Your task to perform on an android device: Go to calendar. Show me events next week Image 0: 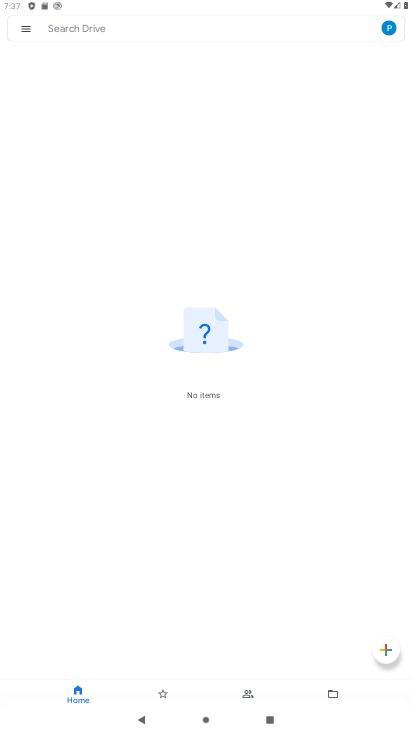
Step 0: press home button
Your task to perform on an android device: Go to calendar. Show me events next week Image 1: 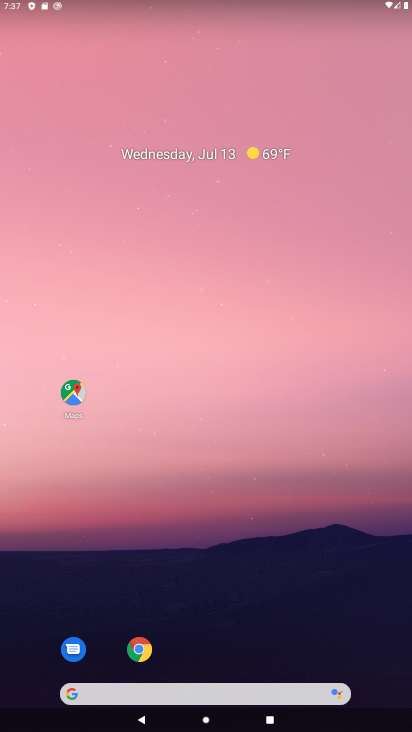
Step 1: drag from (253, 543) to (301, 212)
Your task to perform on an android device: Go to calendar. Show me events next week Image 2: 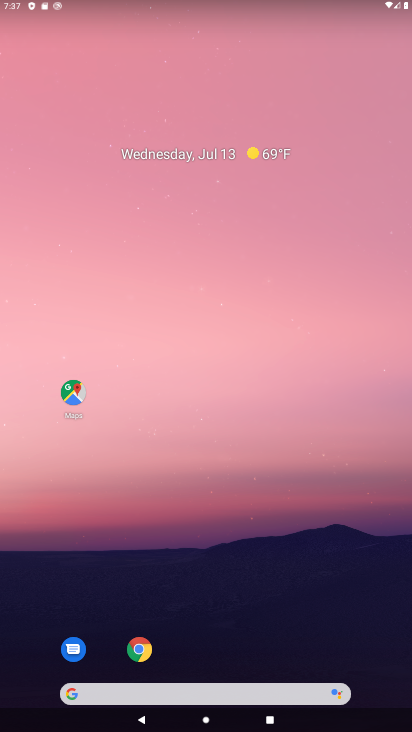
Step 2: drag from (163, 680) to (271, 184)
Your task to perform on an android device: Go to calendar. Show me events next week Image 3: 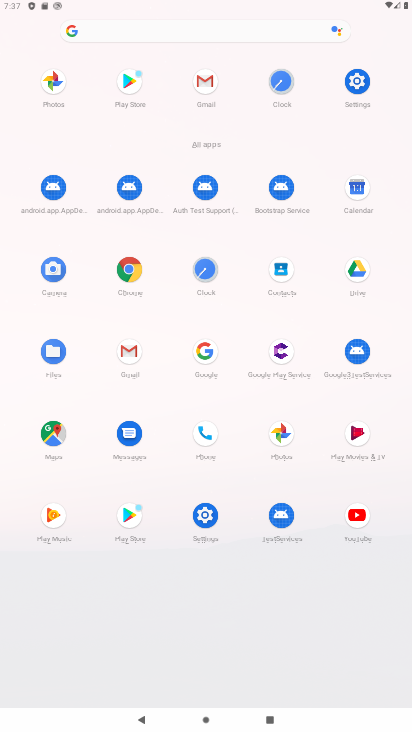
Step 3: click (356, 190)
Your task to perform on an android device: Go to calendar. Show me events next week Image 4: 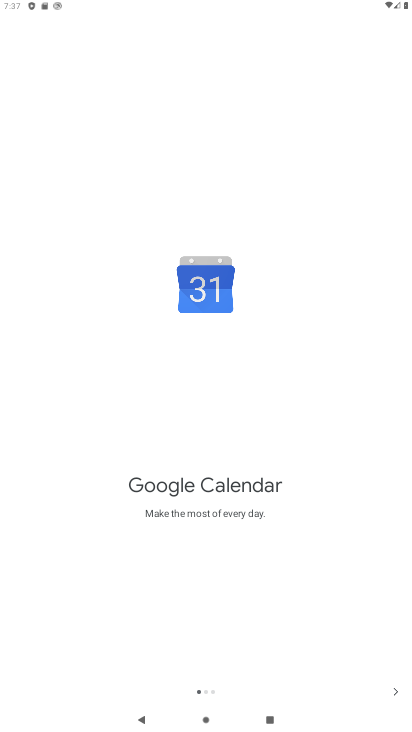
Step 4: click (390, 698)
Your task to perform on an android device: Go to calendar. Show me events next week Image 5: 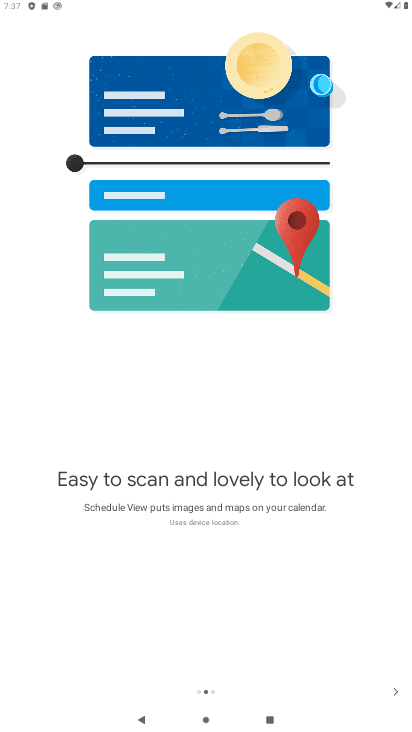
Step 5: click (390, 698)
Your task to perform on an android device: Go to calendar. Show me events next week Image 6: 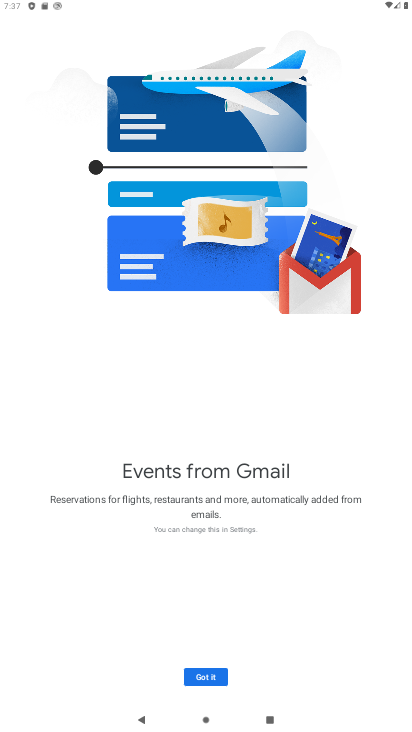
Step 6: click (211, 682)
Your task to perform on an android device: Go to calendar. Show me events next week Image 7: 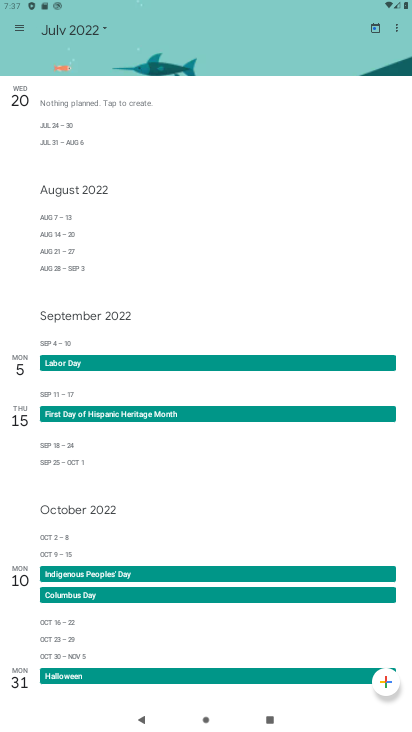
Step 7: click (66, 29)
Your task to perform on an android device: Go to calendar. Show me events next week Image 8: 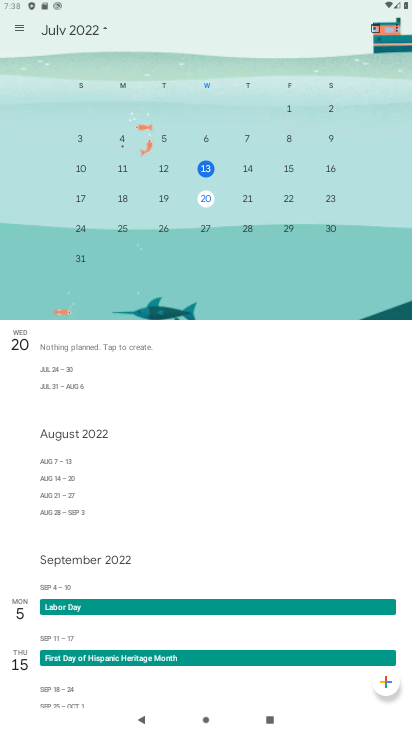
Step 8: click (120, 208)
Your task to perform on an android device: Go to calendar. Show me events next week Image 9: 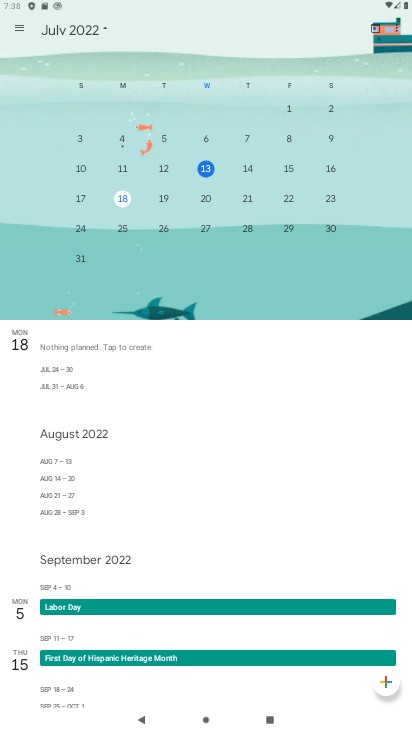
Step 9: click (164, 194)
Your task to perform on an android device: Go to calendar. Show me events next week Image 10: 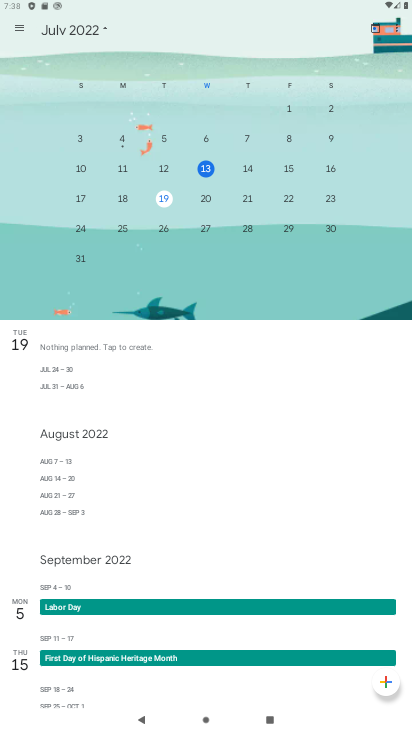
Step 10: task complete